Your task to perform on an android device: Go to Yahoo.com Image 0: 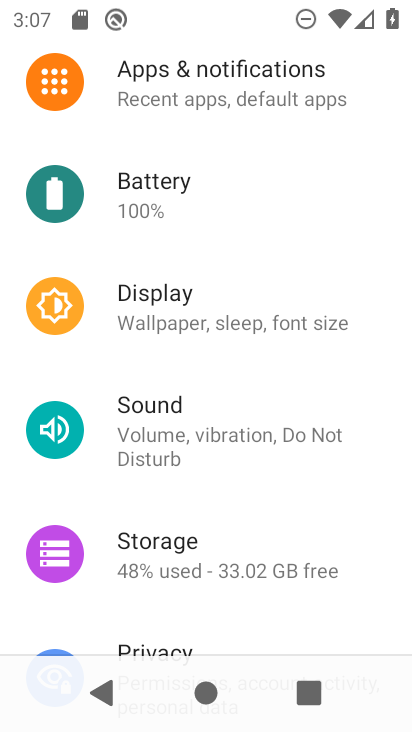
Step 0: press home button
Your task to perform on an android device: Go to Yahoo.com Image 1: 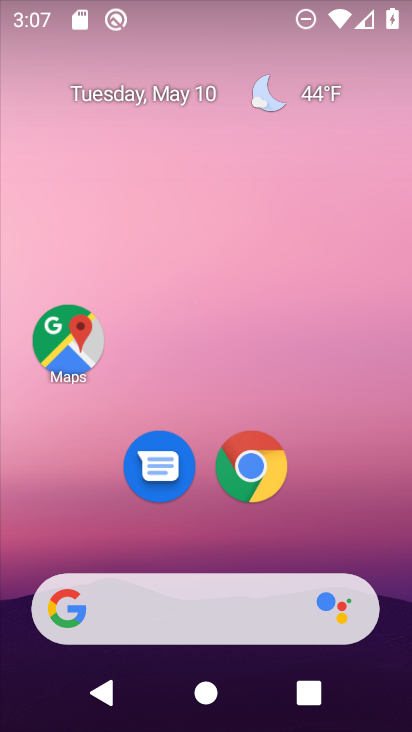
Step 1: click (270, 463)
Your task to perform on an android device: Go to Yahoo.com Image 2: 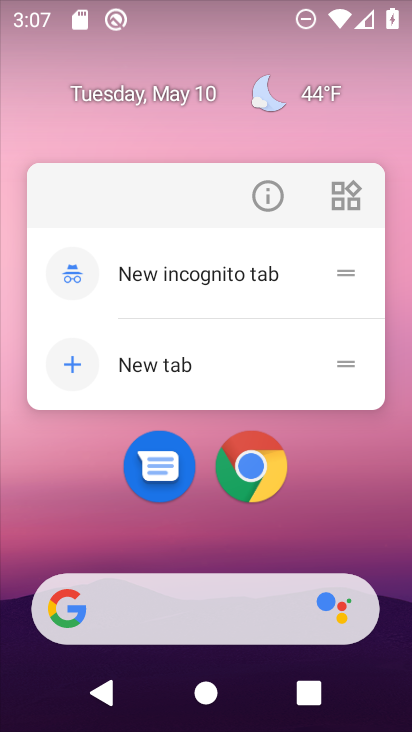
Step 2: click (258, 461)
Your task to perform on an android device: Go to Yahoo.com Image 3: 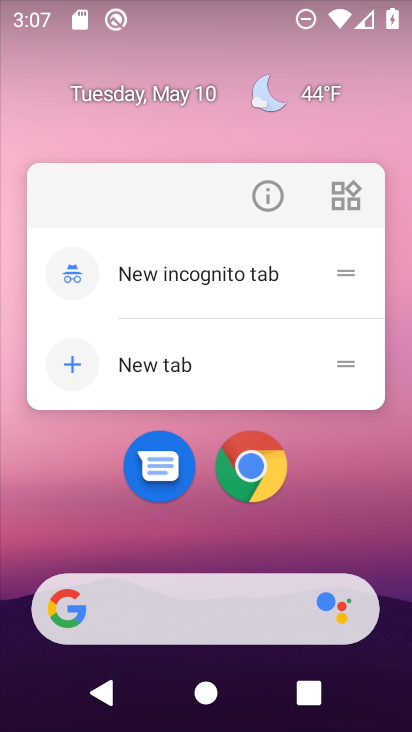
Step 3: click (257, 461)
Your task to perform on an android device: Go to Yahoo.com Image 4: 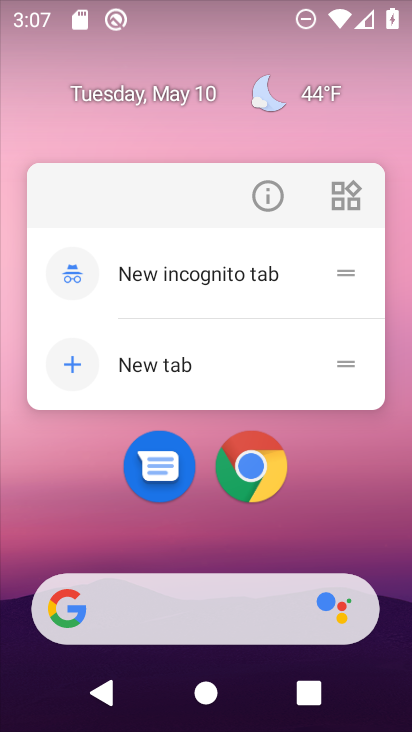
Step 4: click (257, 461)
Your task to perform on an android device: Go to Yahoo.com Image 5: 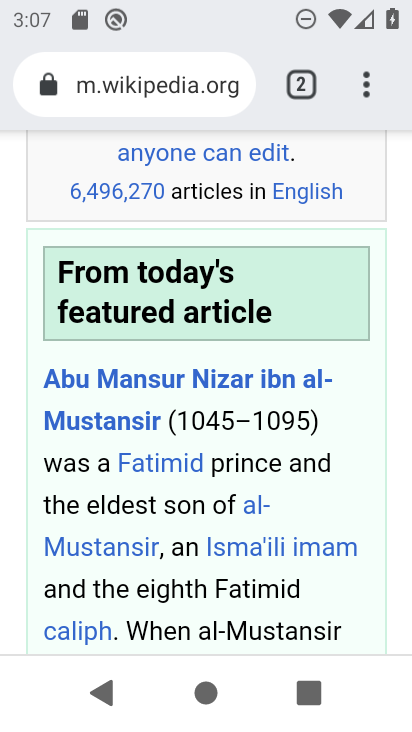
Step 5: click (153, 79)
Your task to perform on an android device: Go to Yahoo.com Image 6: 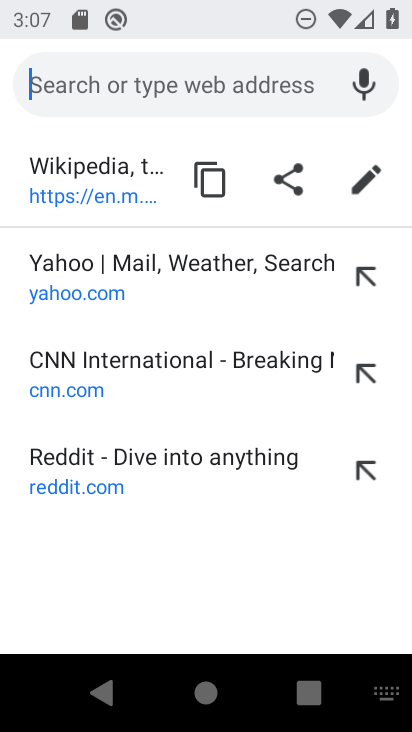
Step 6: type "yahoo.com"
Your task to perform on an android device: Go to Yahoo.com Image 7: 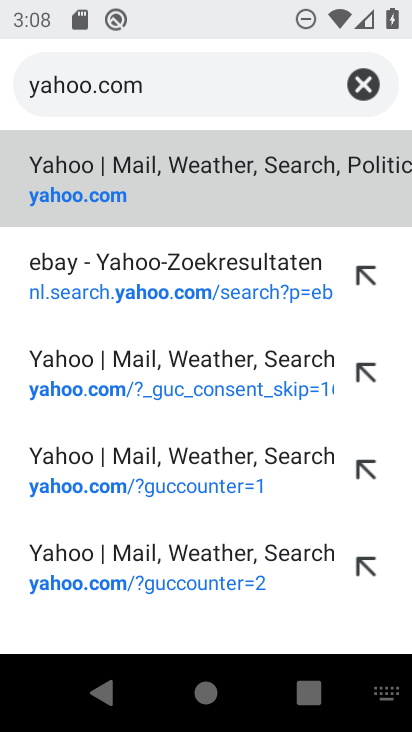
Step 7: click (134, 195)
Your task to perform on an android device: Go to Yahoo.com Image 8: 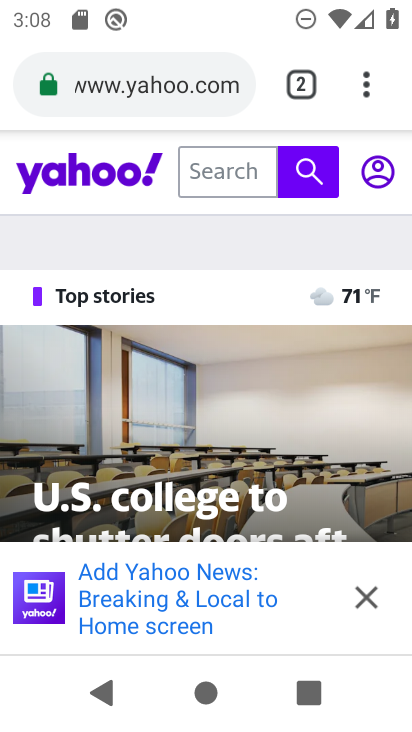
Step 8: task complete